Your task to perform on an android device: Open calendar and show me the third week of next month Image 0: 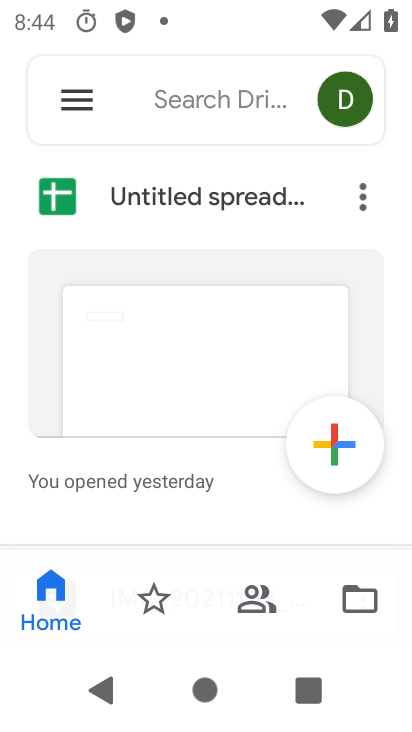
Step 0: press home button
Your task to perform on an android device: Open calendar and show me the third week of next month Image 1: 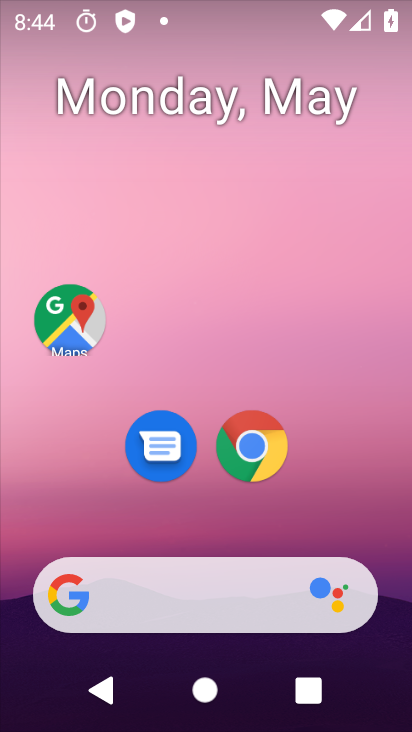
Step 1: drag from (361, 557) to (305, 12)
Your task to perform on an android device: Open calendar and show me the third week of next month Image 2: 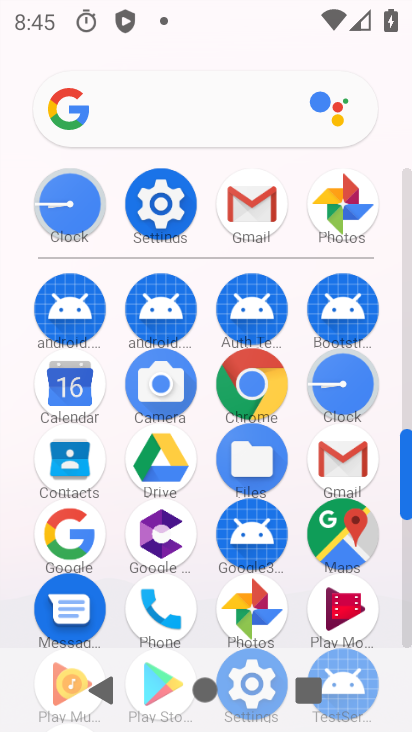
Step 2: click (73, 397)
Your task to perform on an android device: Open calendar and show me the third week of next month Image 3: 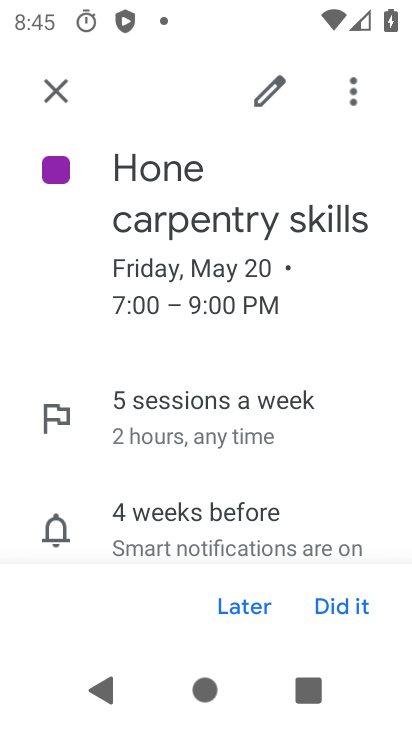
Step 3: click (47, 98)
Your task to perform on an android device: Open calendar and show me the third week of next month Image 4: 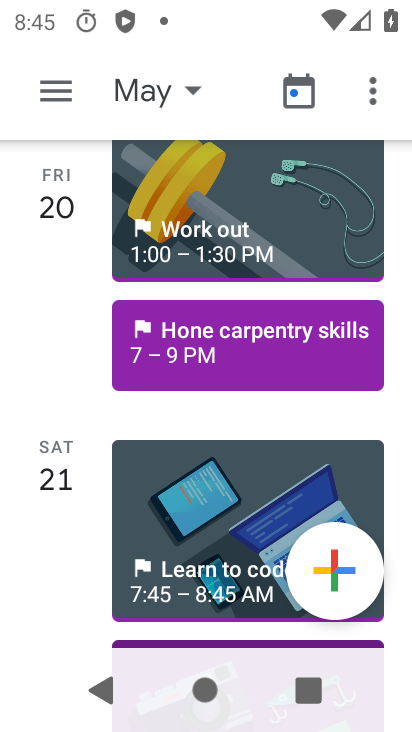
Step 4: click (187, 93)
Your task to perform on an android device: Open calendar and show me the third week of next month Image 5: 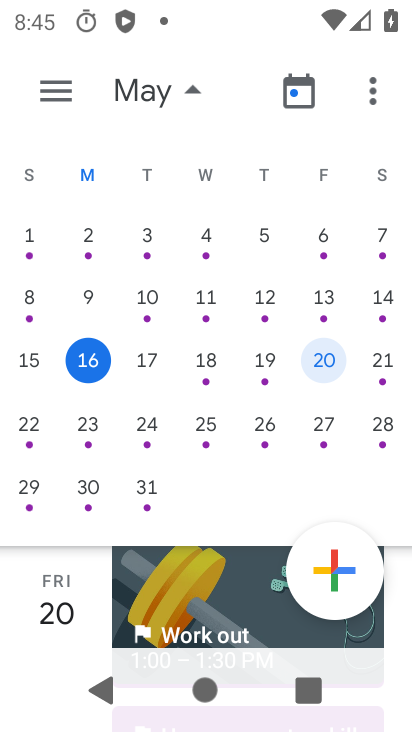
Step 5: drag from (342, 318) to (6, 290)
Your task to perform on an android device: Open calendar and show me the third week of next month Image 6: 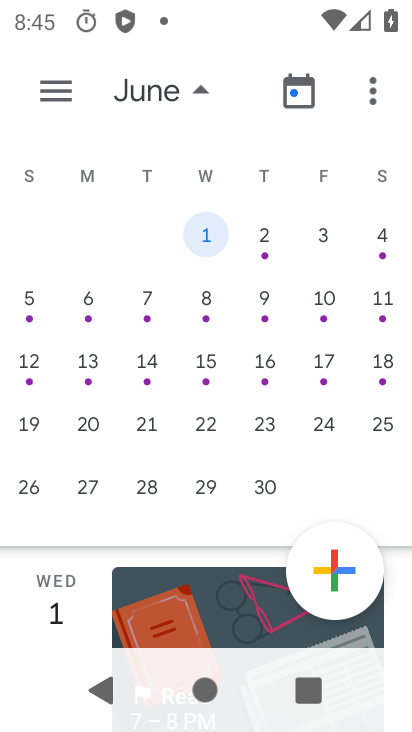
Step 6: click (58, 102)
Your task to perform on an android device: Open calendar and show me the third week of next month Image 7: 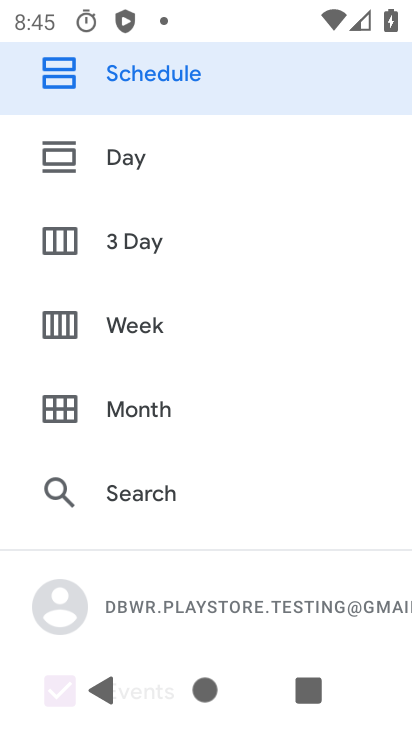
Step 7: click (93, 315)
Your task to perform on an android device: Open calendar and show me the third week of next month Image 8: 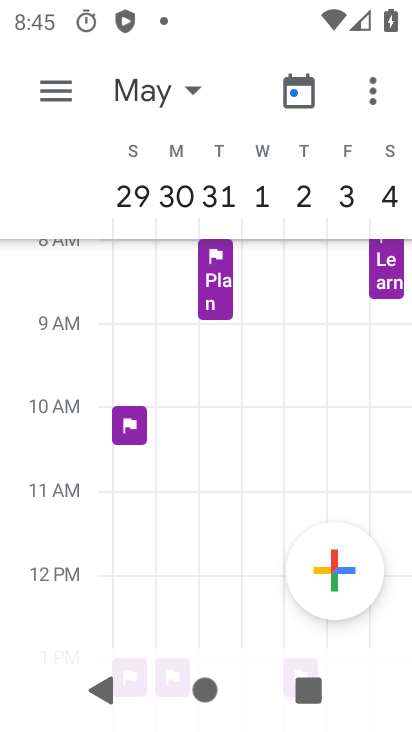
Step 8: task complete